Your task to perform on an android device: turn on the 24-hour format for clock Image 0: 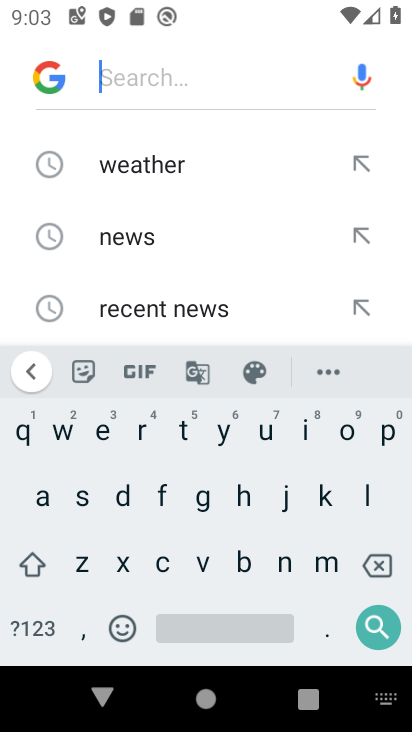
Step 0: press home button
Your task to perform on an android device: turn on the 24-hour format for clock Image 1: 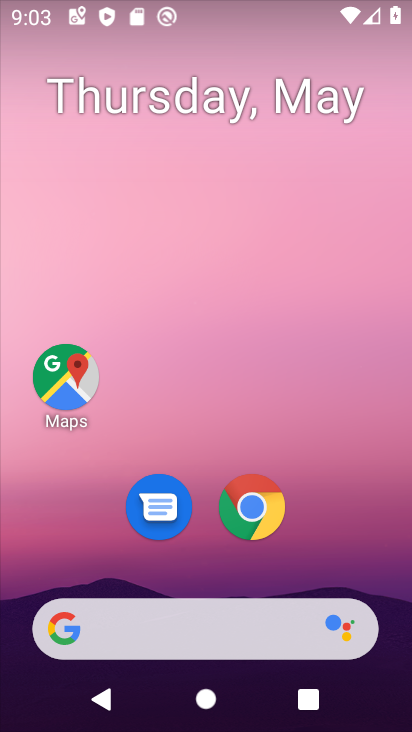
Step 1: drag from (270, 674) to (281, 140)
Your task to perform on an android device: turn on the 24-hour format for clock Image 2: 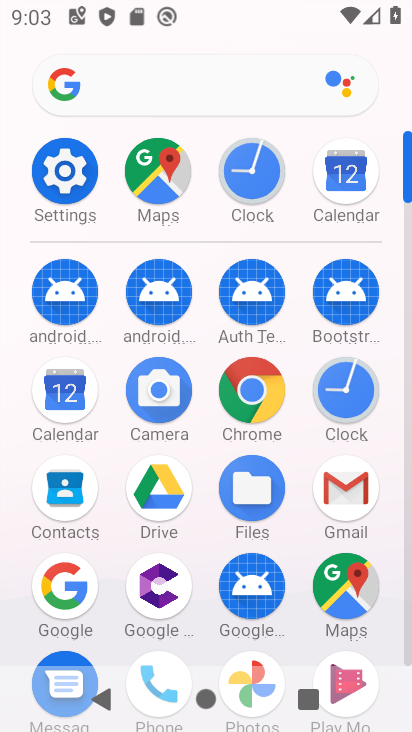
Step 2: click (334, 403)
Your task to perform on an android device: turn on the 24-hour format for clock Image 3: 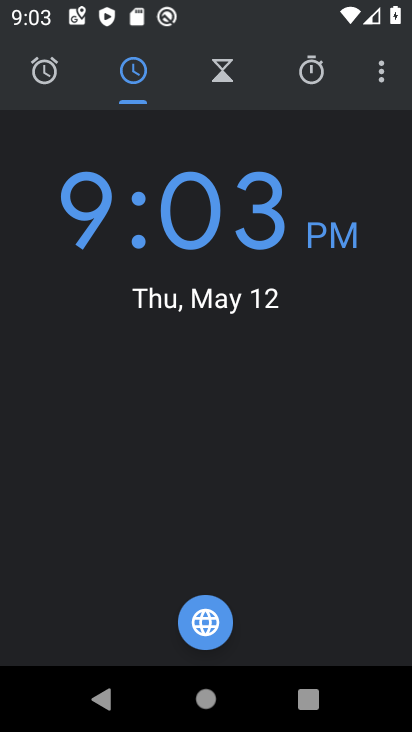
Step 3: click (370, 90)
Your task to perform on an android device: turn on the 24-hour format for clock Image 4: 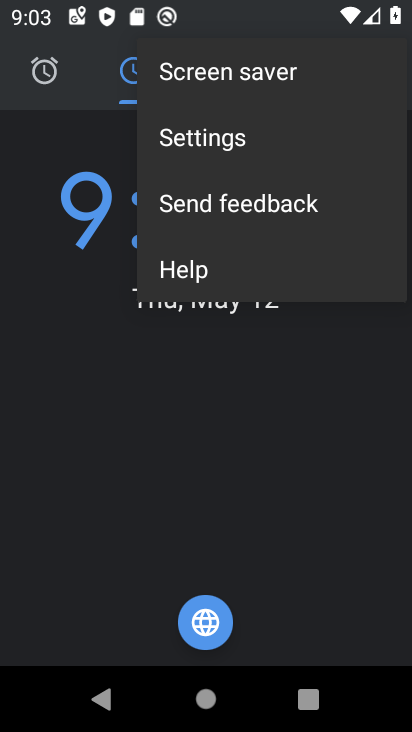
Step 4: click (266, 132)
Your task to perform on an android device: turn on the 24-hour format for clock Image 5: 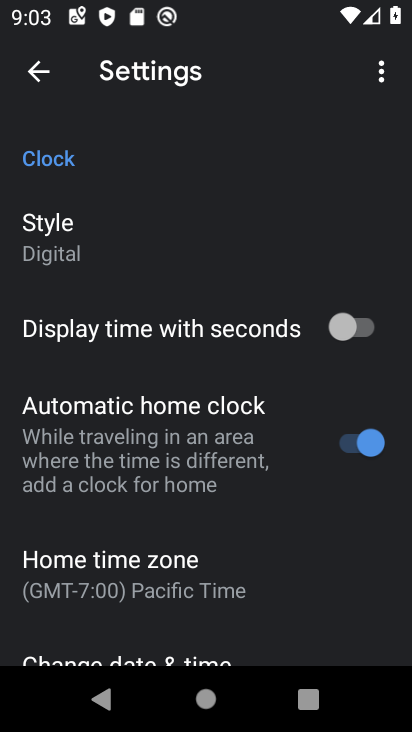
Step 5: click (157, 651)
Your task to perform on an android device: turn on the 24-hour format for clock Image 6: 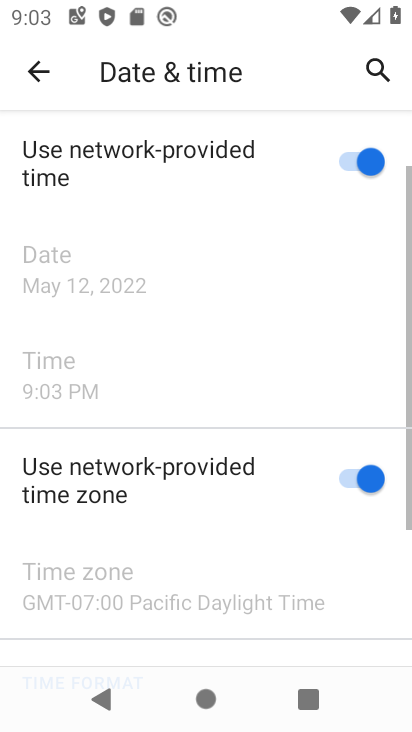
Step 6: drag from (246, 583) to (284, 311)
Your task to perform on an android device: turn on the 24-hour format for clock Image 7: 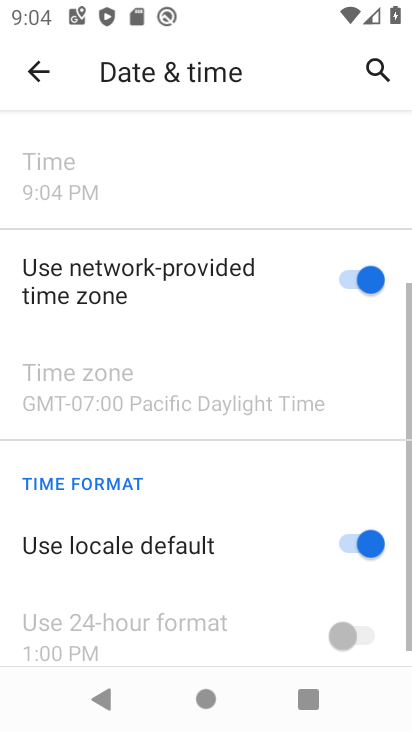
Step 7: click (349, 554)
Your task to perform on an android device: turn on the 24-hour format for clock Image 8: 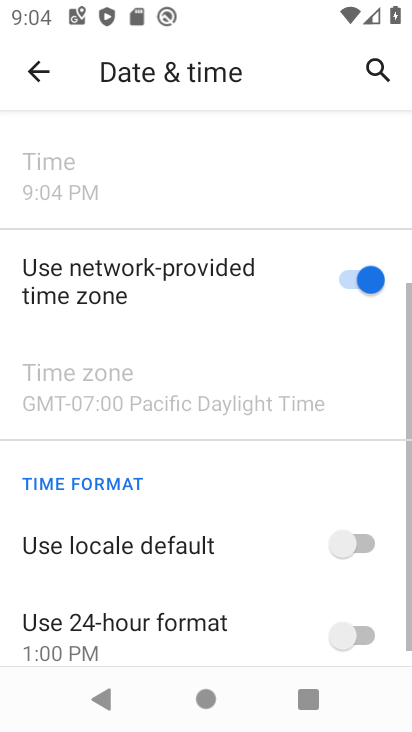
Step 8: click (369, 644)
Your task to perform on an android device: turn on the 24-hour format for clock Image 9: 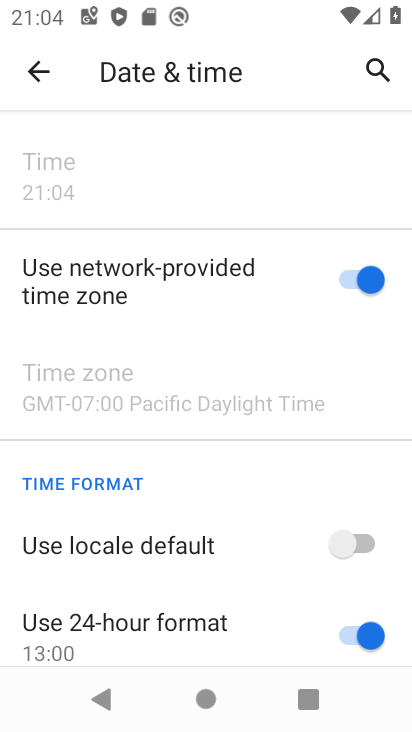
Step 9: task complete